Your task to perform on an android device: check battery use Image 0: 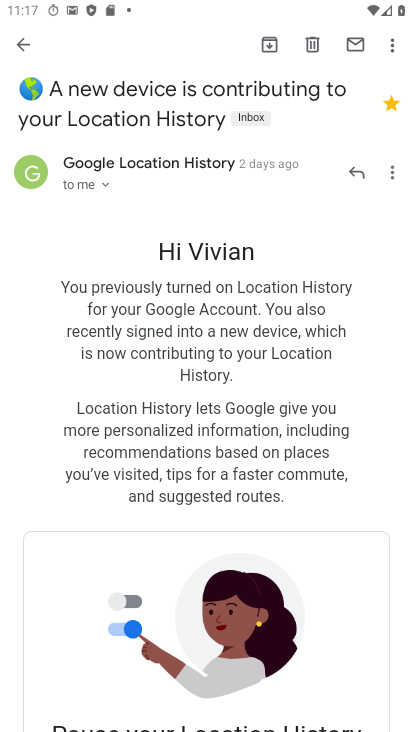
Step 0: press home button
Your task to perform on an android device: check battery use Image 1: 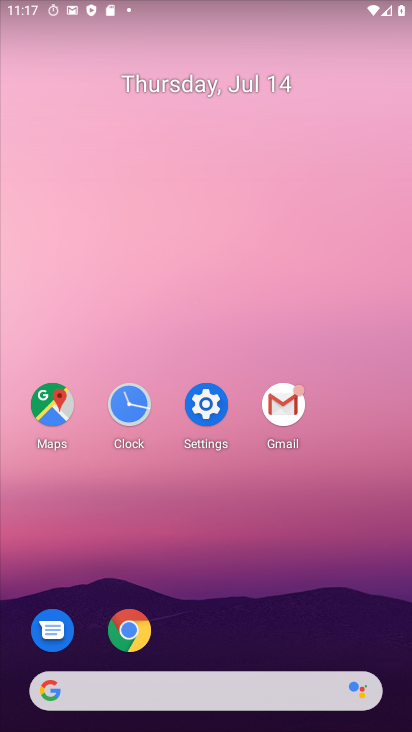
Step 1: click (206, 400)
Your task to perform on an android device: check battery use Image 2: 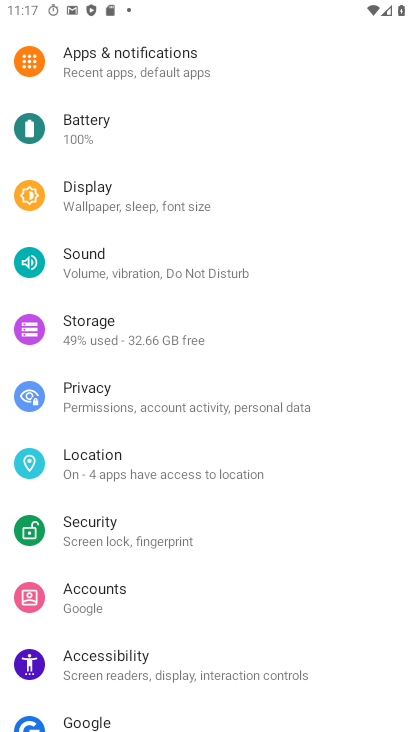
Step 2: click (90, 129)
Your task to perform on an android device: check battery use Image 3: 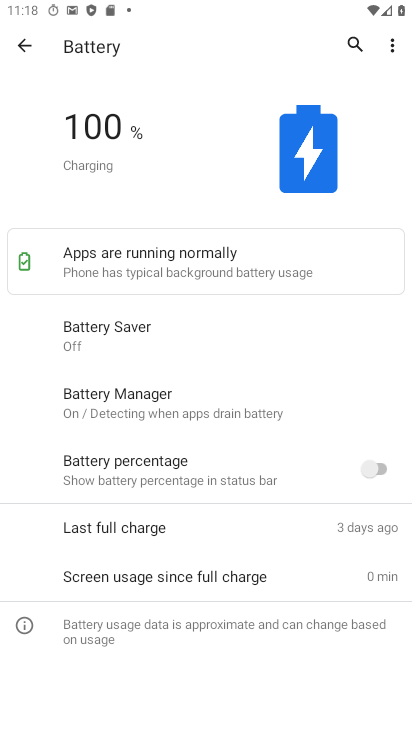
Step 3: task complete